Your task to perform on an android device: Open location settings Image 0: 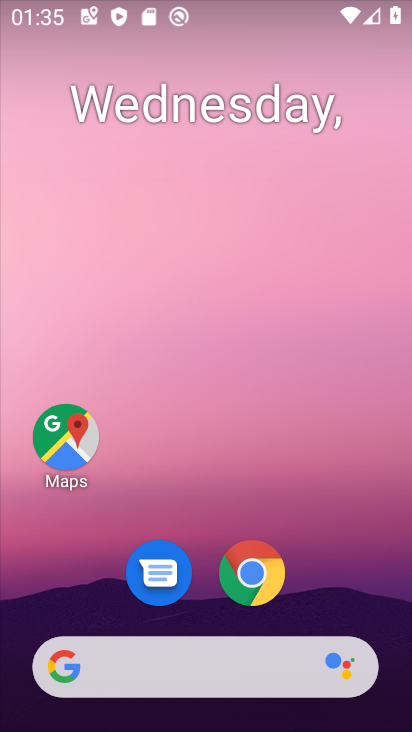
Step 0: drag from (310, 564) to (290, 37)
Your task to perform on an android device: Open location settings Image 1: 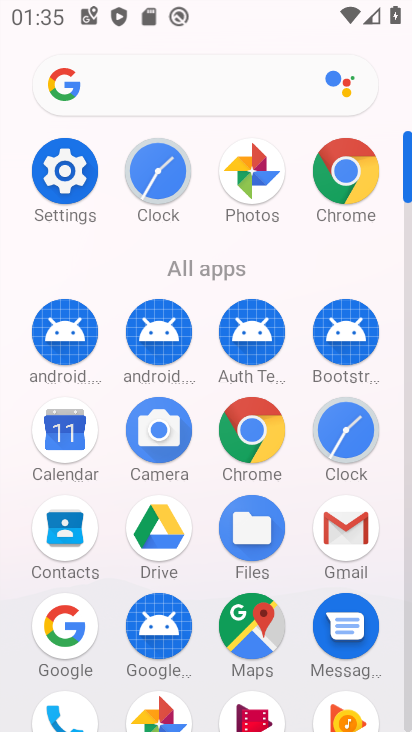
Step 1: click (64, 166)
Your task to perform on an android device: Open location settings Image 2: 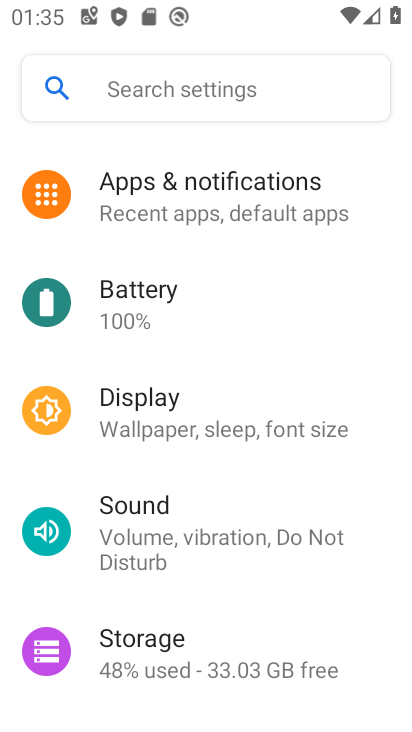
Step 2: drag from (227, 247) to (217, 528)
Your task to perform on an android device: Open location settings Image 3: 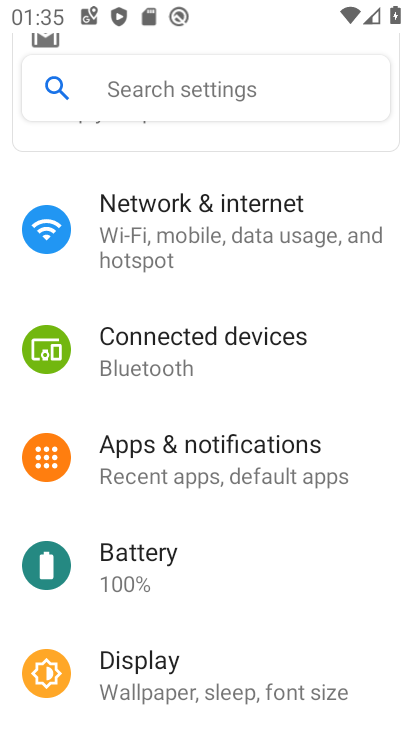
Step 3: drag from (205, 531) to (250, 320)
Your task to perform on an android device: Open location settings Image 4: 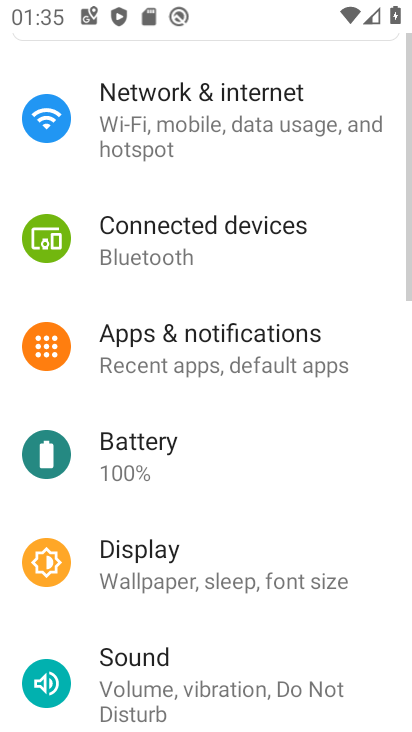
Step 4: drag from (199, 525) to (271, 323)
Your task to perform on an android device: Open location settings Image 5: 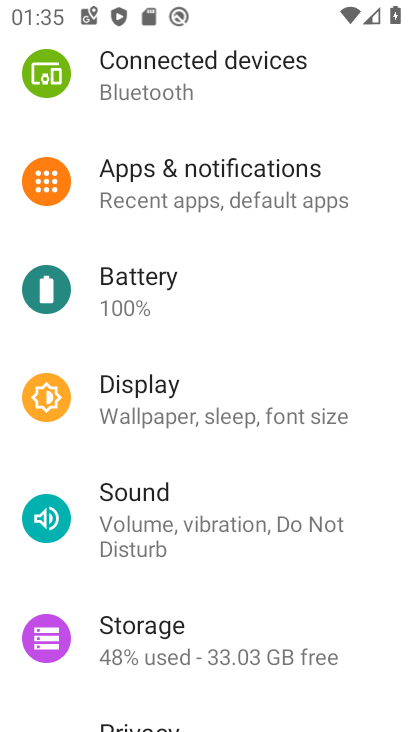
Step 5: drag from (214, 558) to (276, 377)
Your task to perform on an android device: Open location settings Image 6: 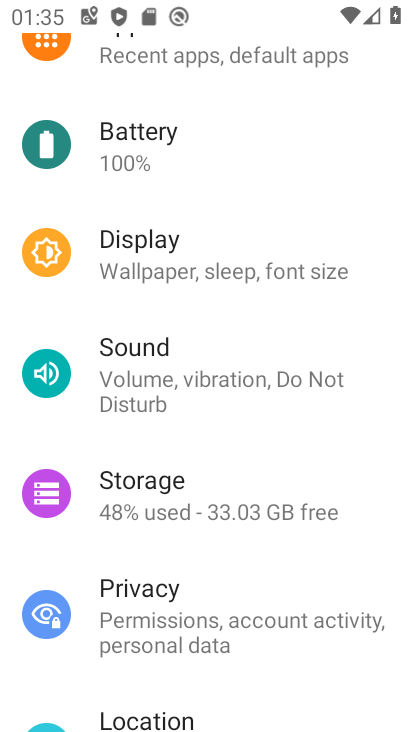
Step 6: drag from (213, 553) to (282, 378)
Your task to perform on an android device: Open location settings Image 7: 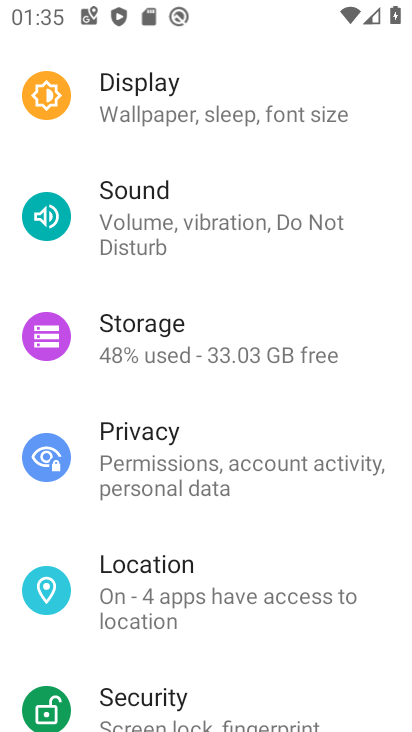
Step 7: click (159, 564)
Your task to perform on an android device: Open location settings Image 8: 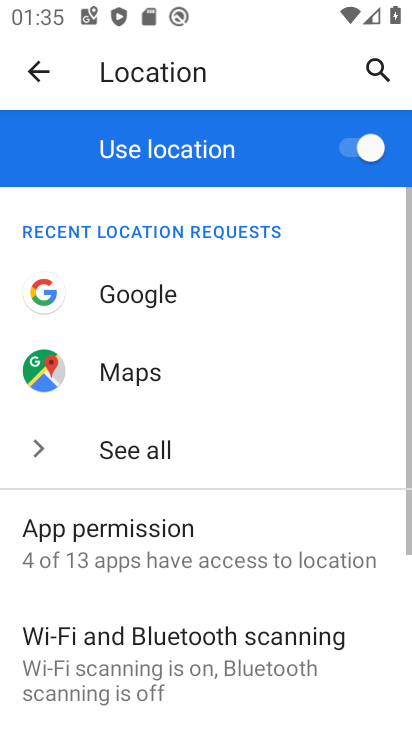
Step 8: task complete